Your task to perform on an android device: Go to Maps Image 0: 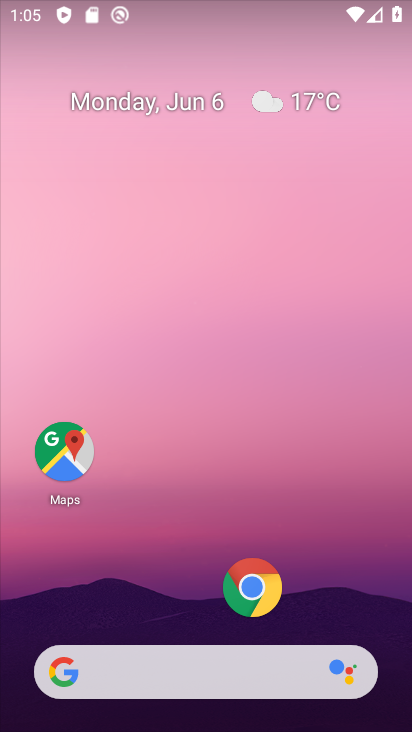
Step 0: click (83, 467)
Your task to perform on an android device: Go to Maps Image 1: 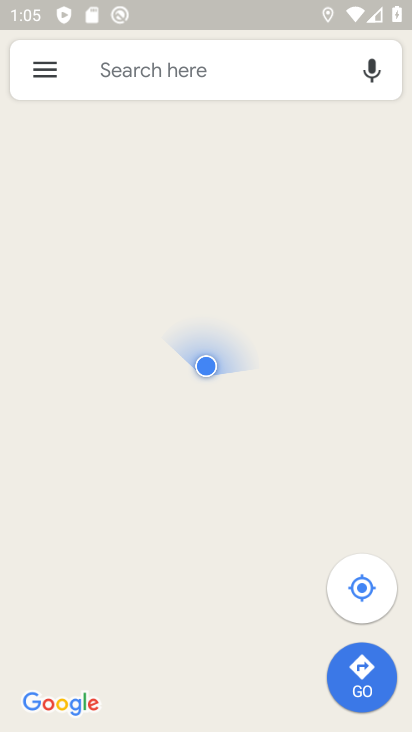
Step 1: task complete